Your task to perform on an android device: Open Google Chrome and open the bookmarks view Image 0: 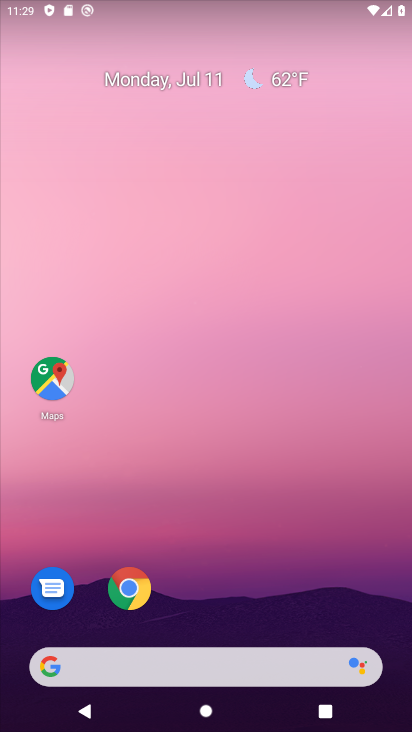
Step 0: click (132, 583)
Your task to perform on an android device: Open Google Chrome and open the bookmarks view Image 1: 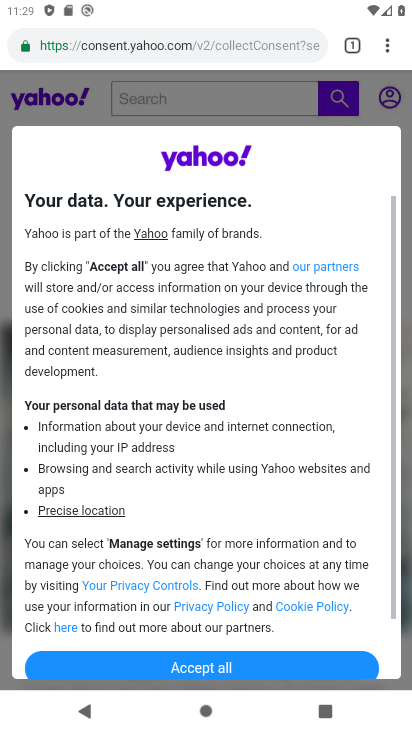
Step 1: click (389, 54)
Your task to perform on an android device: Open Google Chrome and open the bookmarks view Image 2: 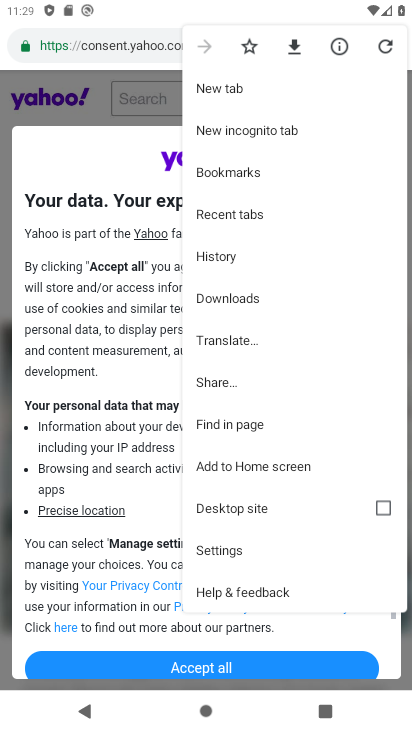
Step 2: click (227, 552)
Your task to perform on an android device: Open Google Chrome and open the bookmarks view Image 3: 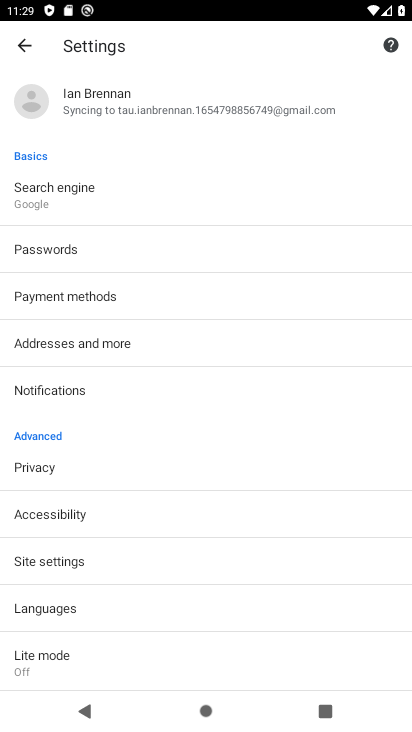
Step 3: click (26, 45)
Your task to perform on an android device: Open Google Chrome and open the bookmarks view Image 4: 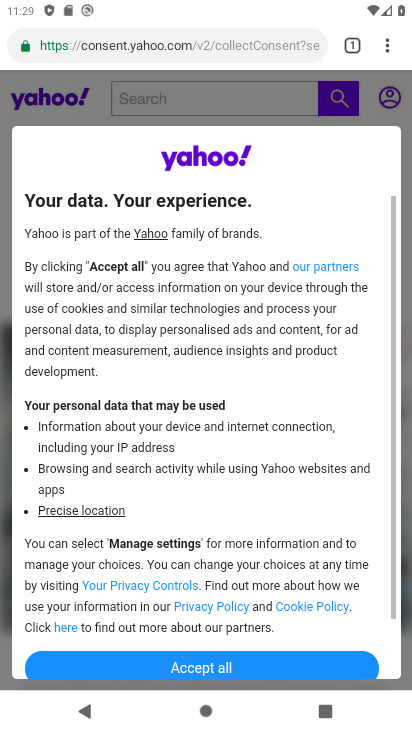
Step 4: click (384, 52)
Your task to perform on an android device: Open Google Chrome and open the bookmarks view Image 5: 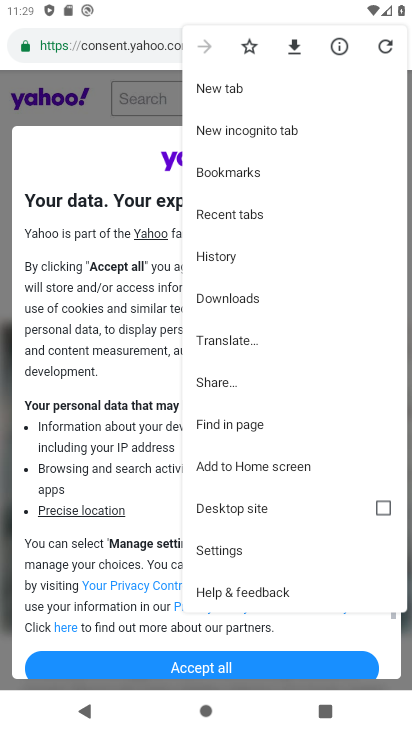
Step 5: click (240, 167)
Your task to perform on an android device: Open Google Chrome and open the bookmarks view Image 6: 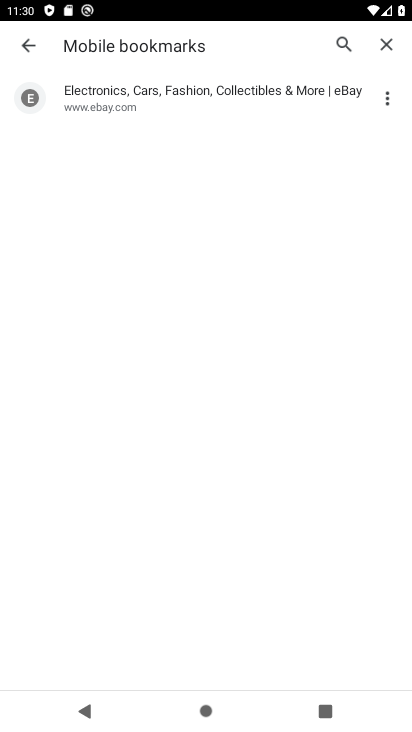
Step 6: task complete